Your task to perform on an android device: Open Amazon Image 0: 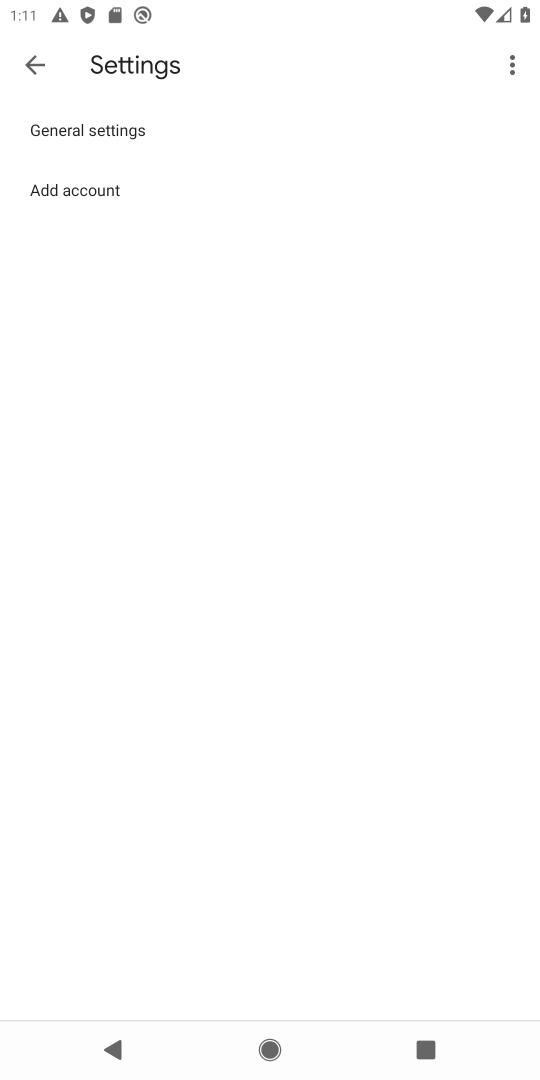
Step 0: press home button
Your task to perform on an android device: Open Amazon Image 1: 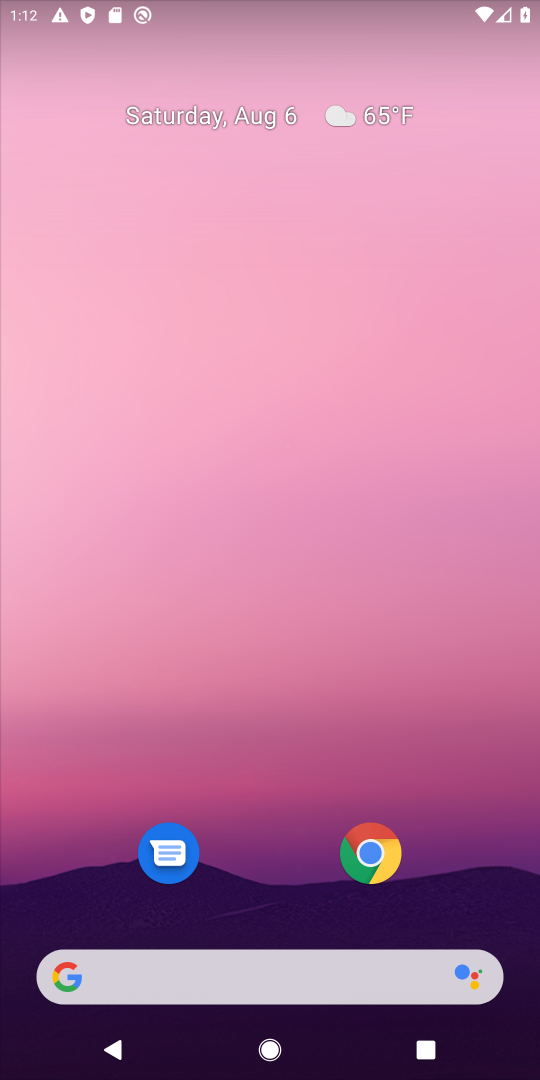
Step 1: click (373, 854)
Your task to perform on an android device: Open Amazon Image 2: 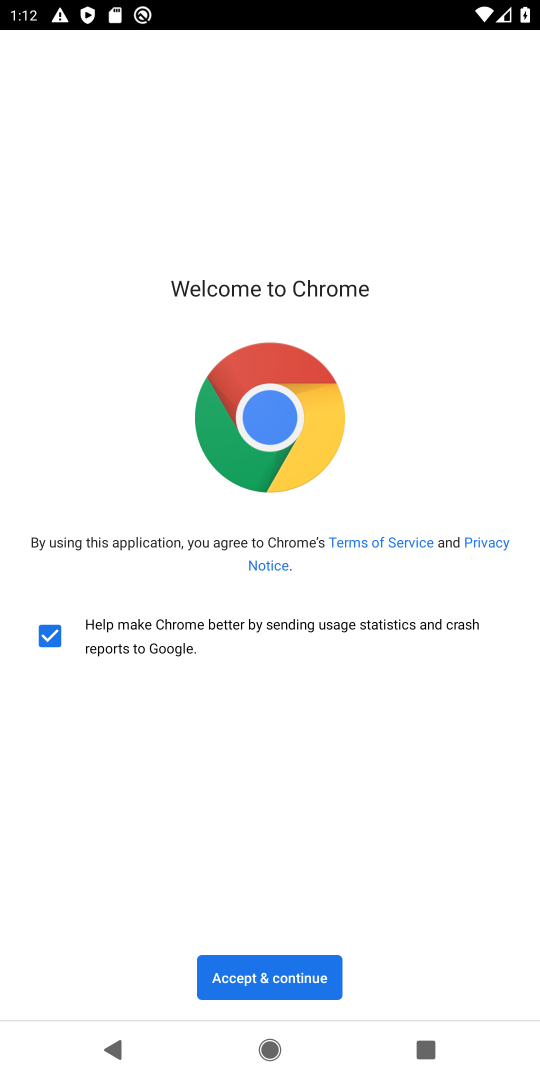
Step 2: click (275, 980)
Your task to perform on an android device: Open Amazon Image 3: 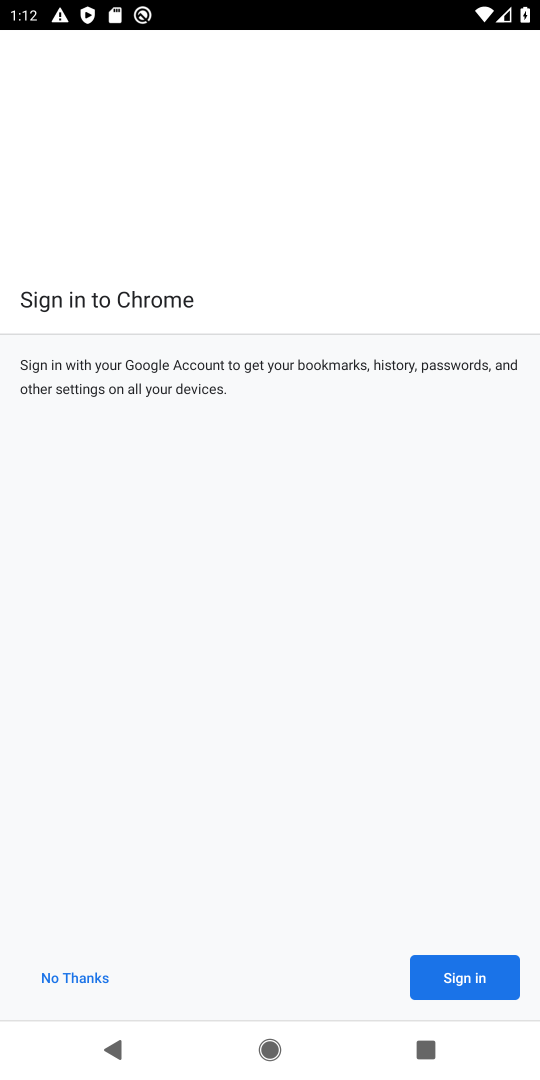
Step 3: click (66, 980)
Your task to perform on an android device: Open Amazon Image 4: 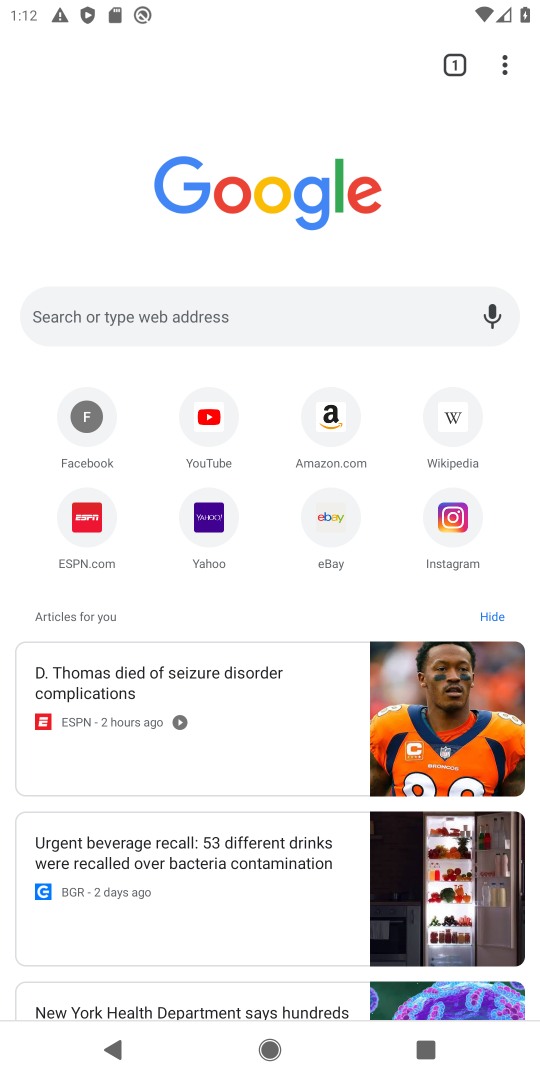
Step 4: click (221, 300)
Your task to perform on an android device: Open Amazon Image 5: 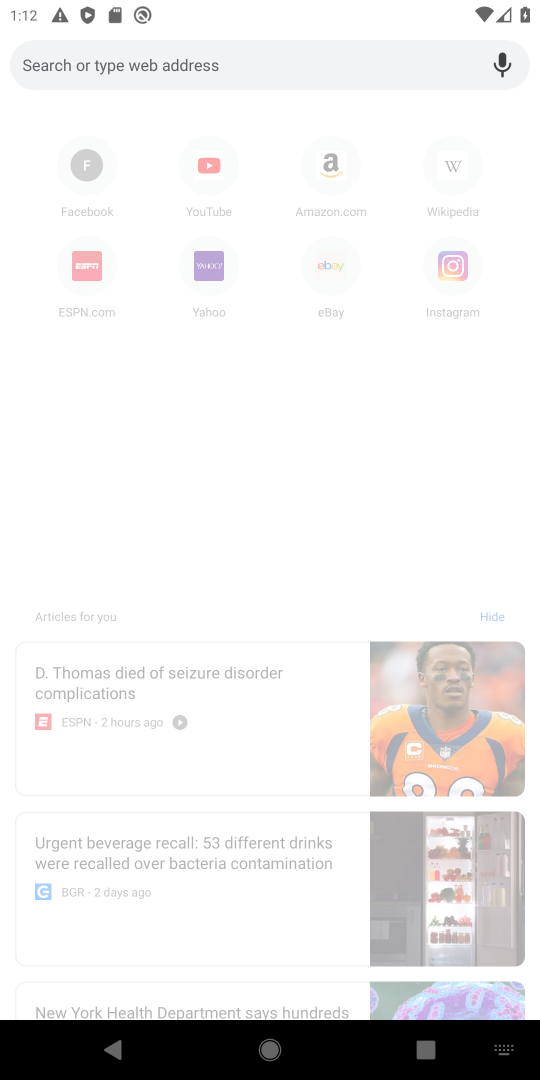
Step 5: type "amazon"
Your task to perform on an android device: Open Amazon Image 6: 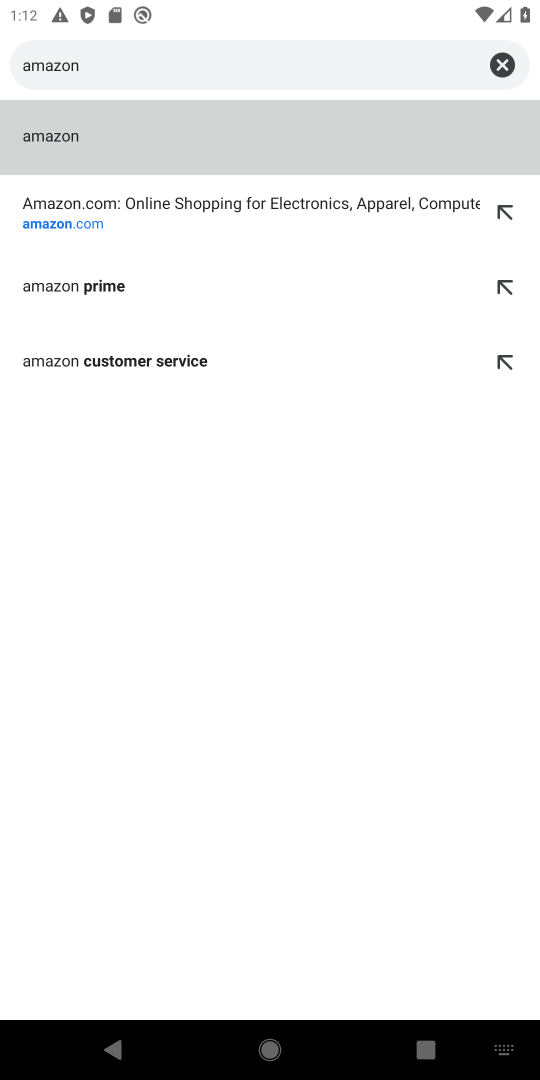
Step 6: click (80, 143)
Your task to perform on an android device: Open Amazon Image 7: 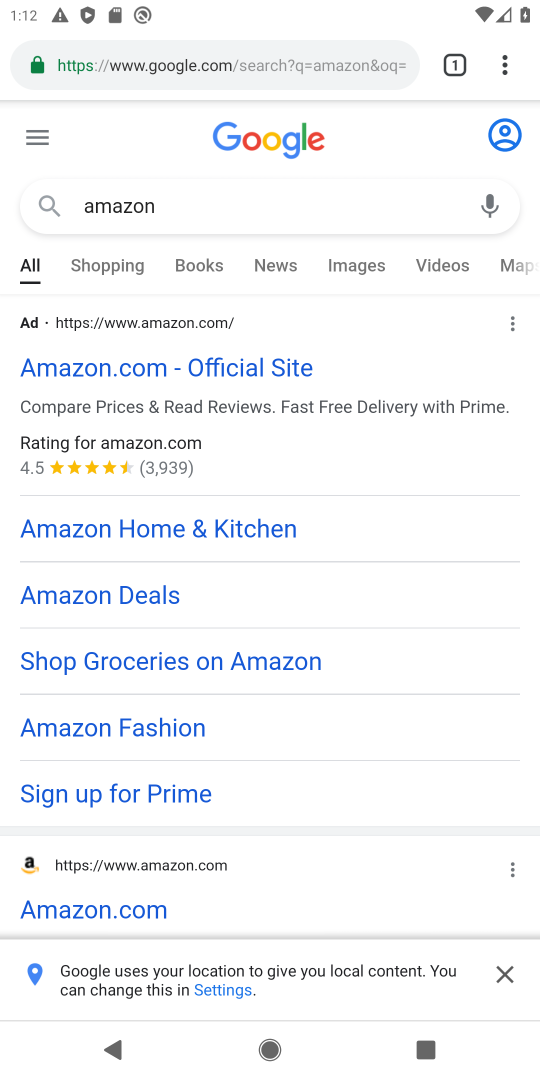
Step 7: click (96, 362)
Your task to perform on an android device: Open Amazon Image 8: 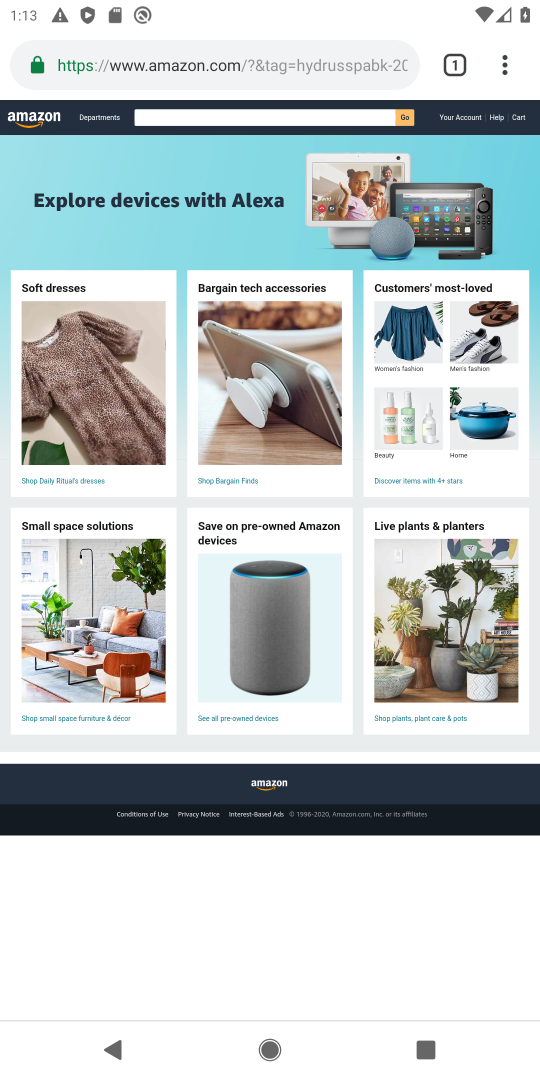
Step 8: task complete